Your task to perform on an android device: change the clock display to analog Image 0: 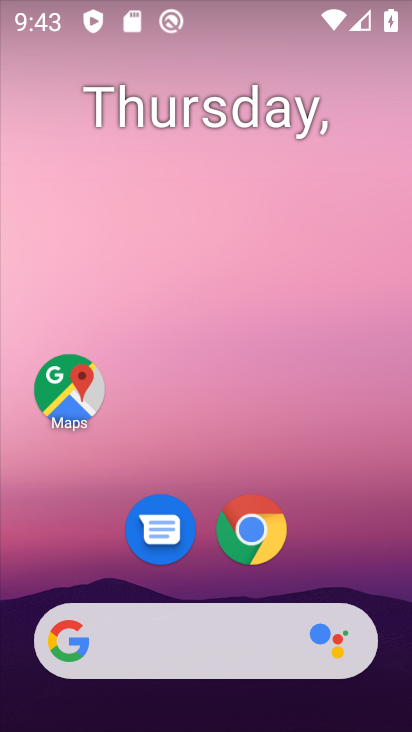
Step 0: drag from (211, 563) to (225, 0)
Your task to perform on an android device: change the clock display to analog Image 1: 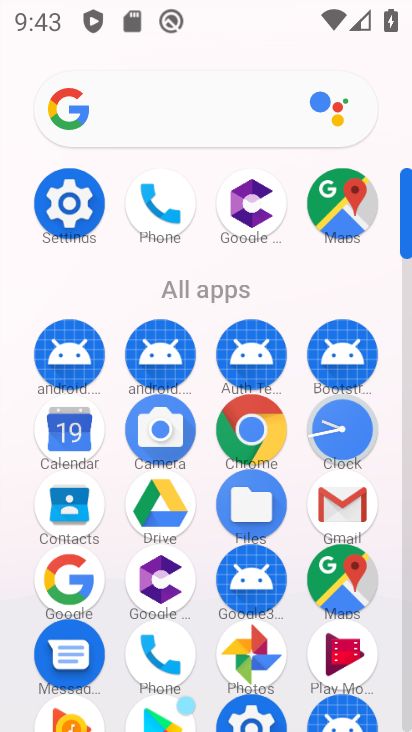
Step 1: click (343, 435)
Your task to perform on an android device: change the clock display to analog Image 2: 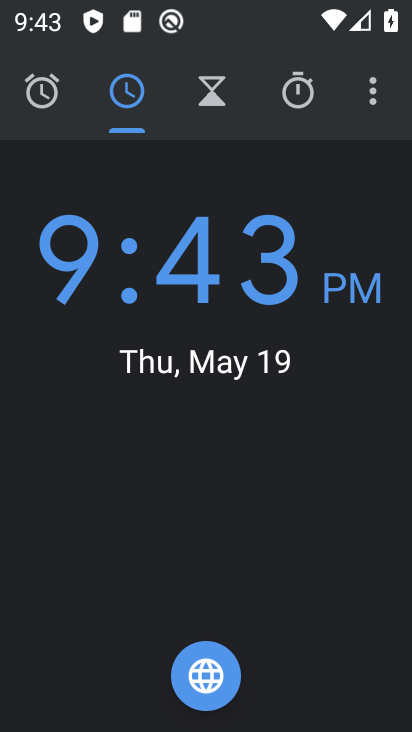
Step 2: click (367, 94)
Your task to perform on an android device: change the clock display to analog Image 3: 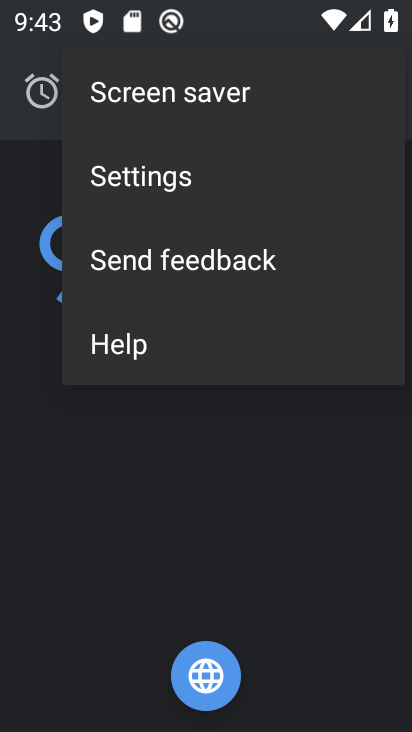
Step 3: click (171, 185)
Your task to perform on an android device: change the clock display to analog Image 4: 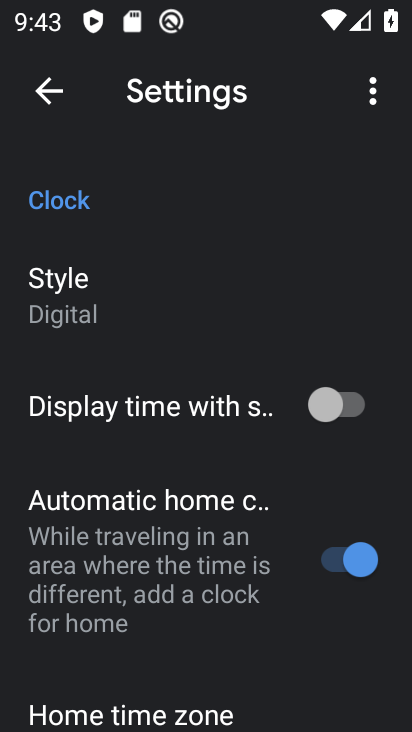
Step 4: click (70, 300)
Your task to perform on an android device: change the clock display to analog Image 5: 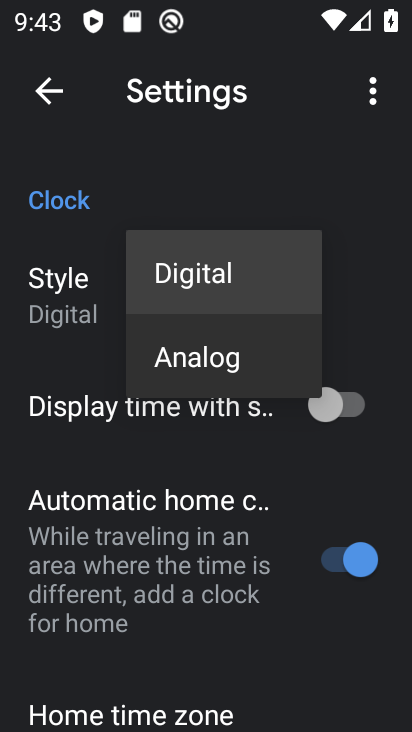
Step 5: click (184, 371)
Your task to perform on an android device: change the clock display to analog Image 6: 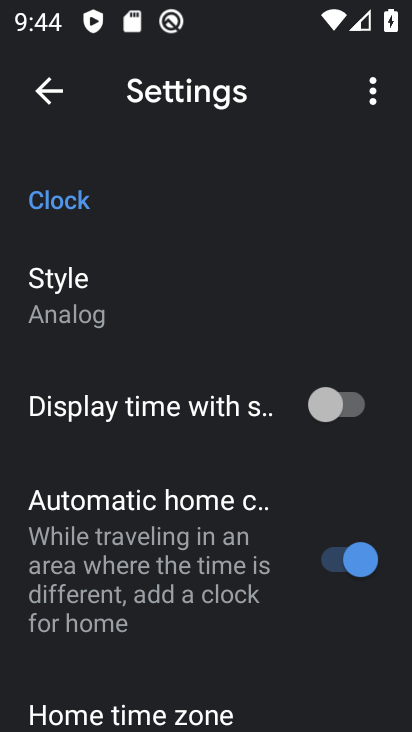
Step 6: task complete